Your task to perform on an android device: turn on wifi Image 0: 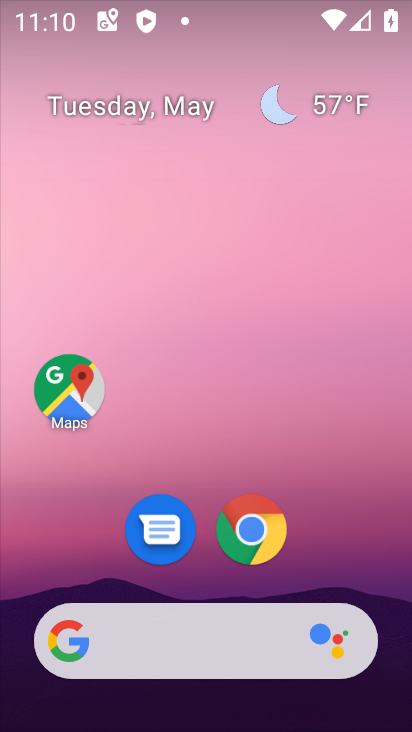
Step 0: drag from (312, 7) to (275, 593)
Your task to perform on an android device: turn on wifi Image 1: 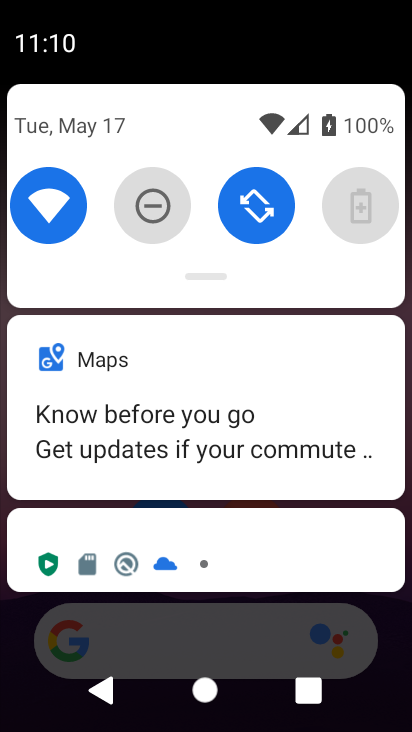
Step 1: task complete